Your task to perform on an android device: Go to calendar. Show me events next week Image 0: 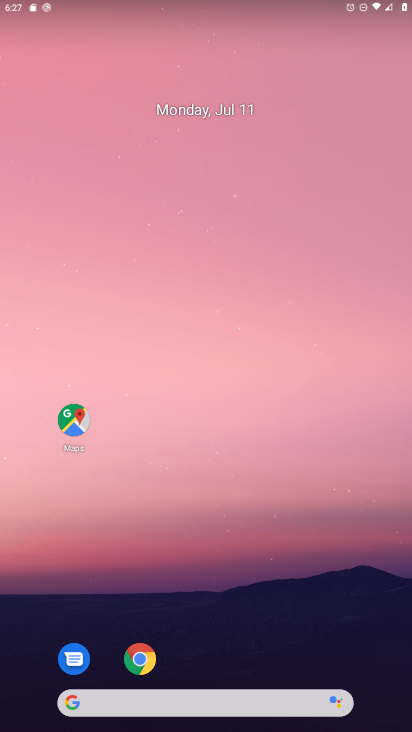
Step 0: drag from (378, 641) to (340, 112)
Your task to perform on an android device: Go to calendar. Show me events next week Image 1: 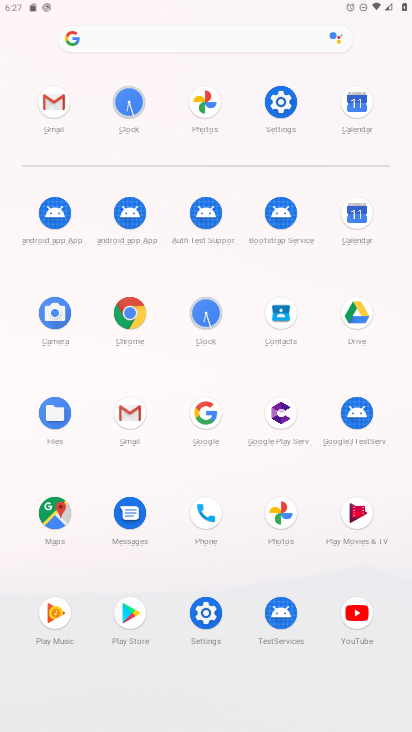
Step 1: click (357, 212)
Your task to perform on an android device: Go to calendar. Show me events next week Image 2: 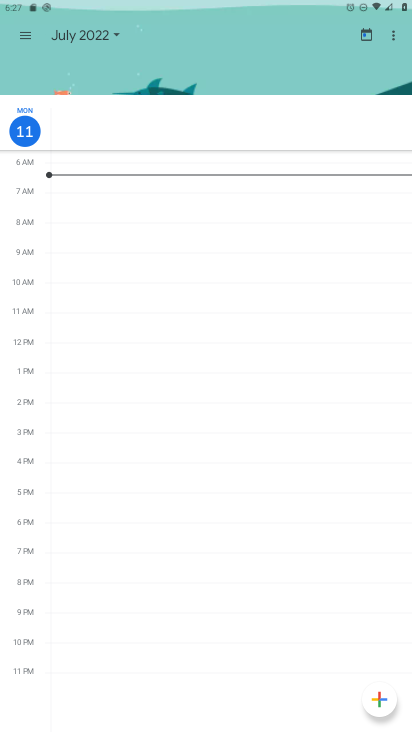
Step 2: click (27, 33)
Your task to perform on an android device: Go to calendar. Show me events next week Image 3: 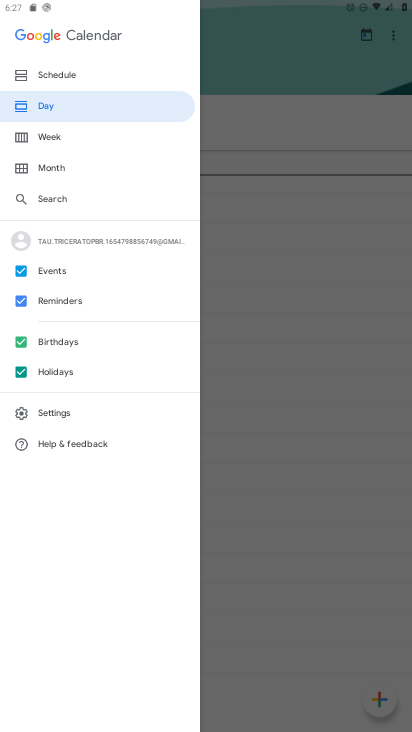
Step 3: click (49, 146)
Your task to perform on an android device: Go to calendar. Show me events next week Image 4: 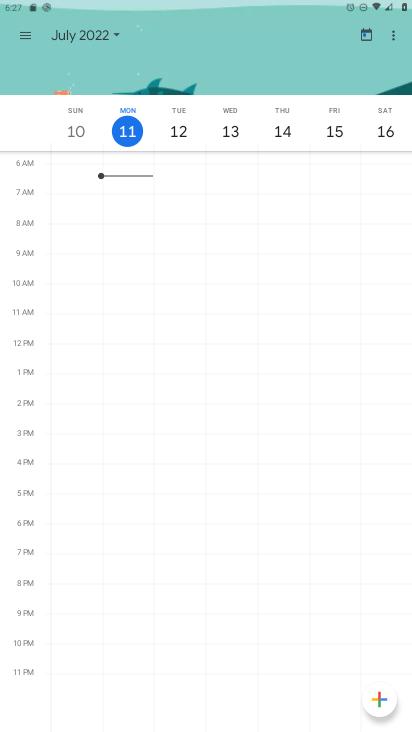
Step 4: click (113, 32)
Your task to perform on an android device: Go to calendar. Show me events next week Image 5: 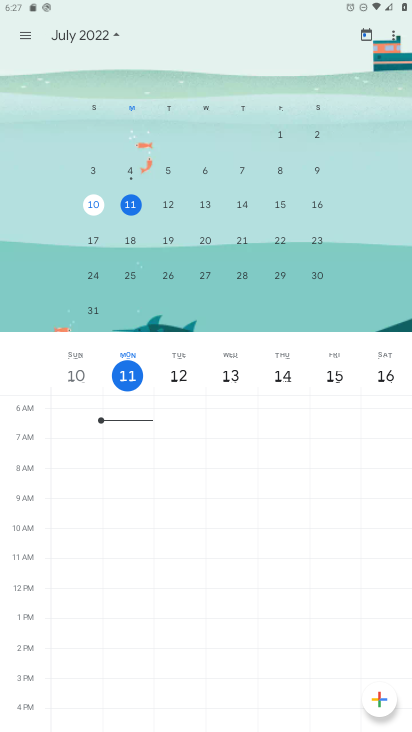
Step 5: click (90, 234)
Your task to perform on an android device: Go to calendar. Show me events next week Image 6: 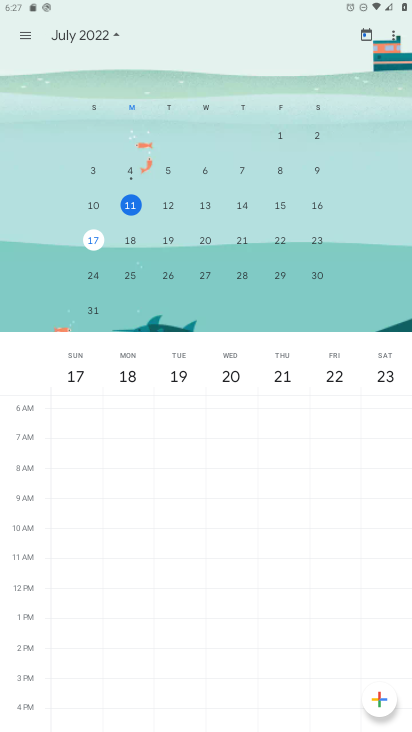
Step 6: task complete